Your task to perform on an android device: Search for Italian restaurants on Maps Image 0: 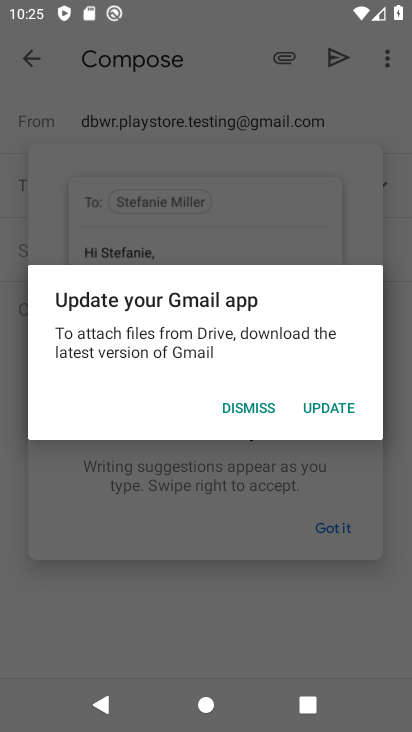
Step 0: press home button
Your task to perform on an android device: Search for Italian restaurants on Maps Image 1: 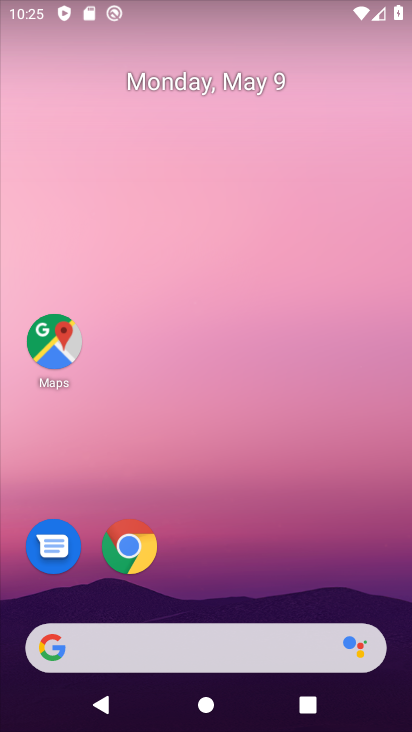
Step 1: drag from (264, 531) to (272, 56)
Your task to perform on an android device: Search for Italian restaurants on Maps Image 2: 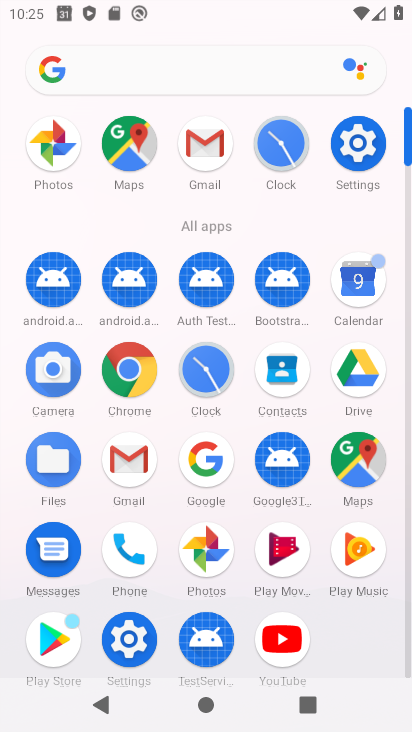
Step 2: click (133, 150)
Your task to perform on an android device: Search for Italian restaurants on Maps Image 3: 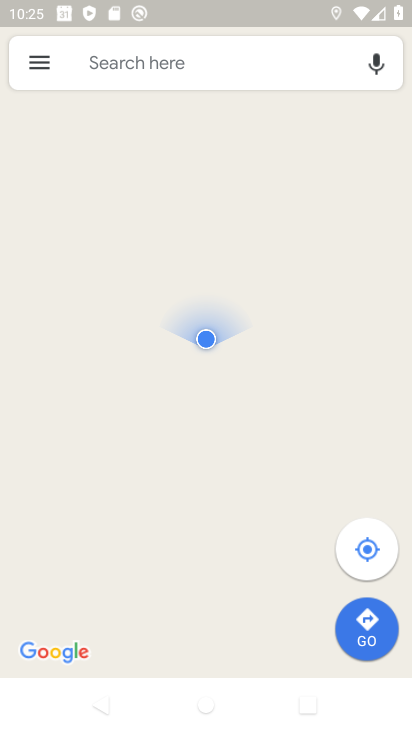
Step 3: click (232, 70)
Your task to perform on an android device: Search for Italian restaurants on Maps Image 4: 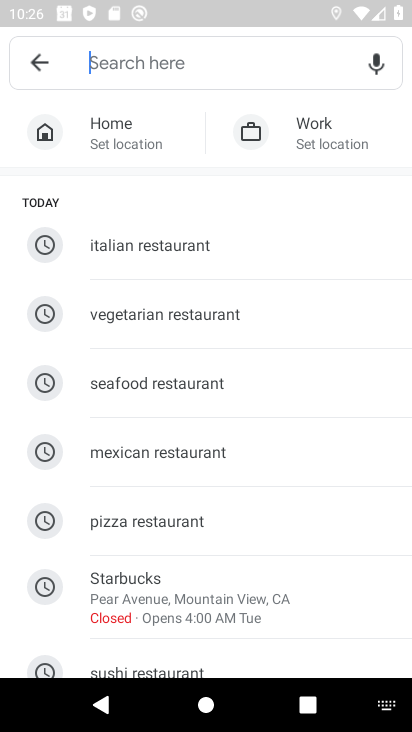
Step 4: click (204, 246)
Your task to perform on an android device: Search for Italian restaurants on Maps Image 5: 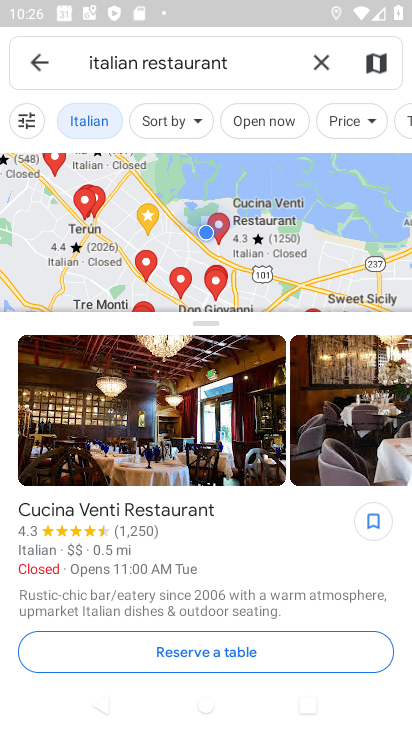
Step 5: task complete